Your task to perform on an android device: open a bookmark in the chrome app Image 0: 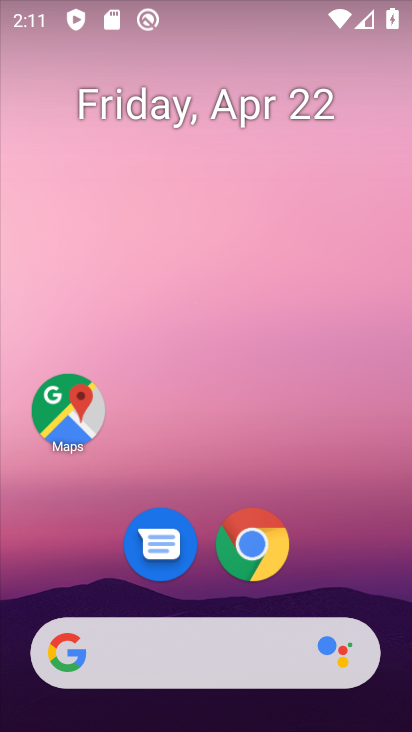
Step 0: click (244, 555)
Your task to perform on an android device: open a bookmark in the chrome app Image 1: 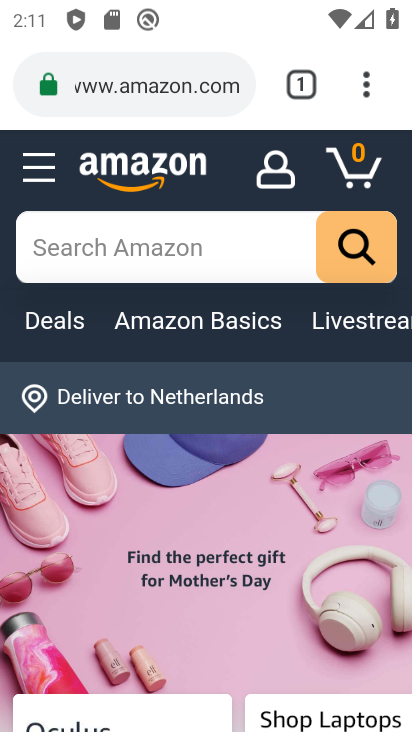
Step 1: task complete